Your task to perform on an android device: Show me popular games on the Play Store Image 0: 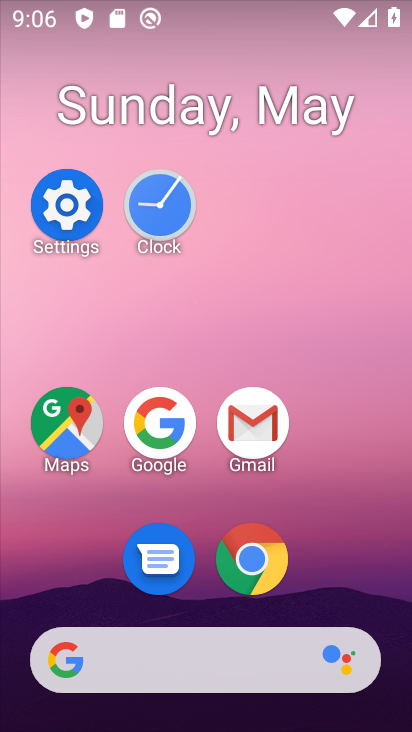
Step 0: drag from (329, 573) to (272, 70)
Your task to perform on an android device: Show me popular games on the Play Store Image 1: 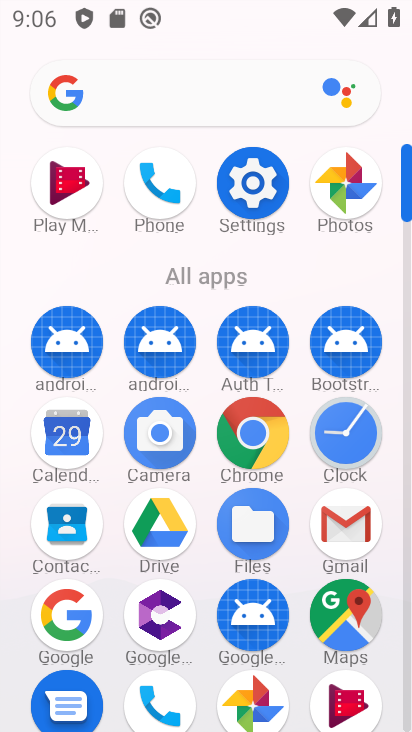
Step 1: drag from (313, 526) to (252, 127)
Your task to perform on an android device: Show me popular games on the Play Store Image 2: 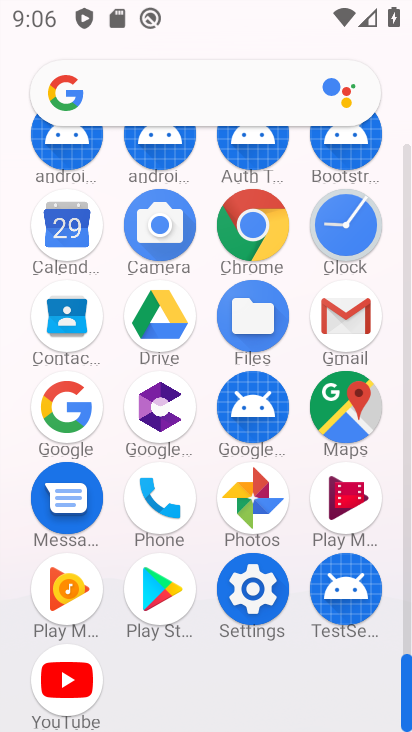
Step 2: click (173, 593)
Your task to perform on an android device: Show me popular games on the Play Store Image 3: 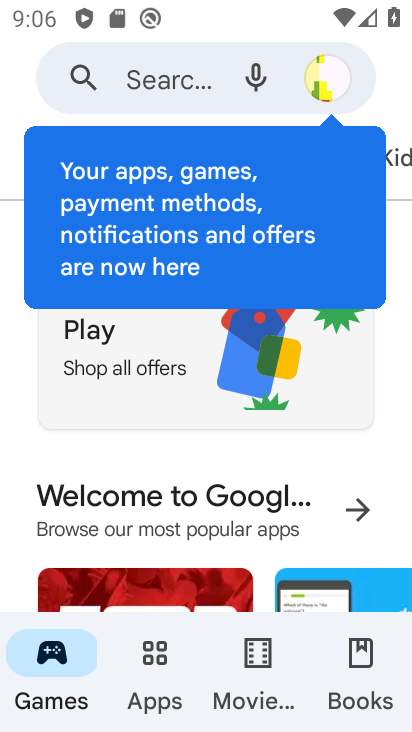
Step 3: drag from (290, 506) to (319, 88)
Your task to perform on an android device: Show me popular games on the Play Store Image 4: 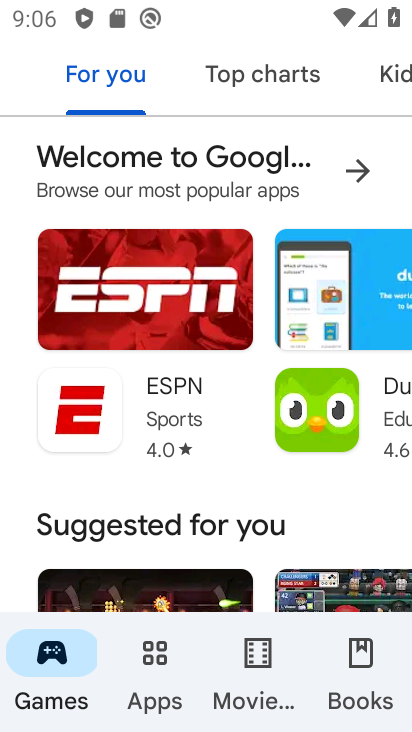
Step 4: drag from (283, 533) to (306, 175)
Your task to perform on an android device: Show me popular games on the Play Store Image 5: 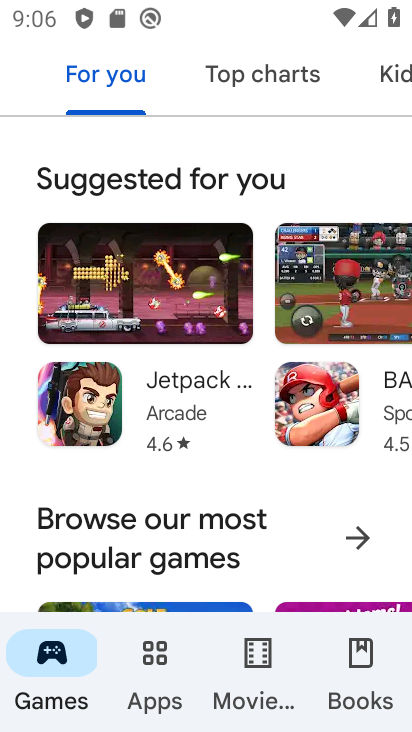
Step 5: drag from (300, 473) to (278, 221)
Your task to perform on an android device: Show me popular games on the Play Store Image 6: 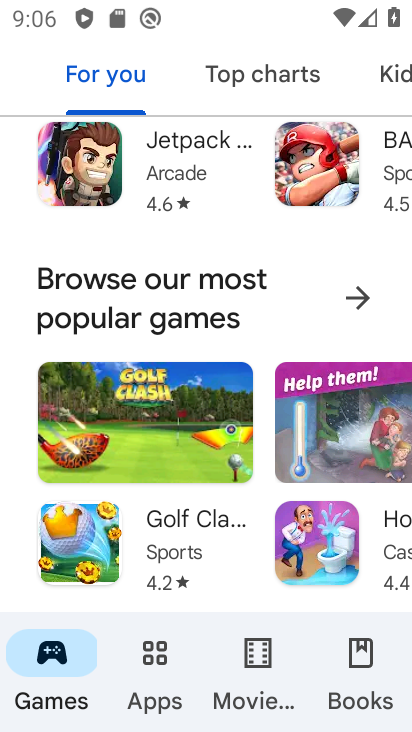
Step 6: click (265, 274)
Your task to perform on an android device: Show me popular games on the Play Store Image 7: 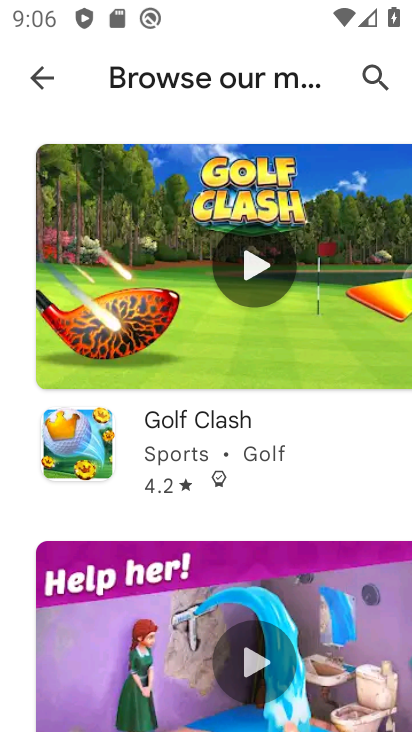
Step 7: task complete